Your task to perform on an android device: turn on improve location accuracy Image 0: 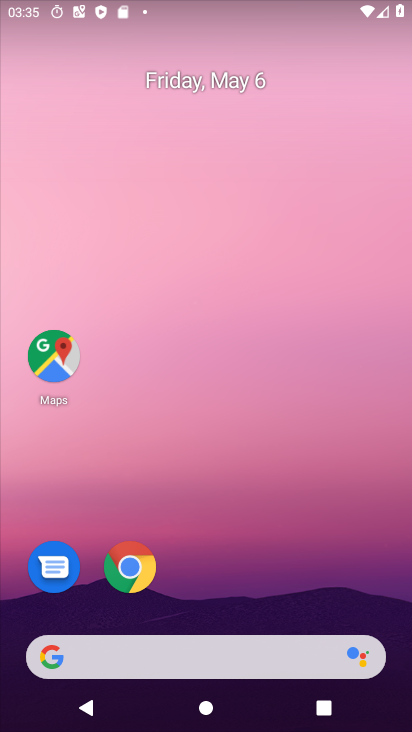
Step 0: drag from (174, 578) to (234, 126)
Your task to perform on an android device: turn on improve location accuracy Image 1: 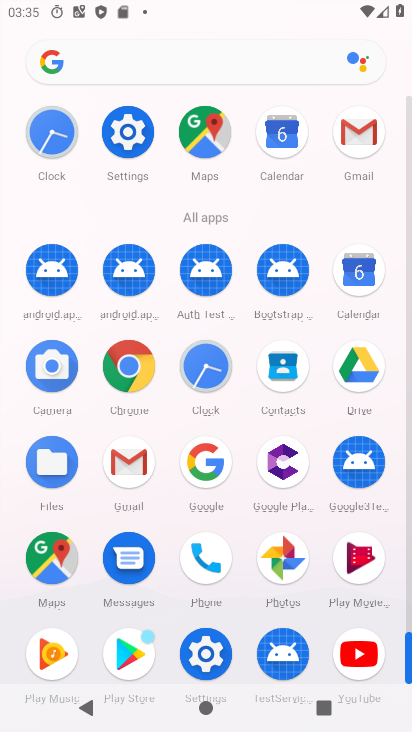
Step 1: click (126, 131)
Your task to perform on an android device: turn on improve location accuracy Image 2: 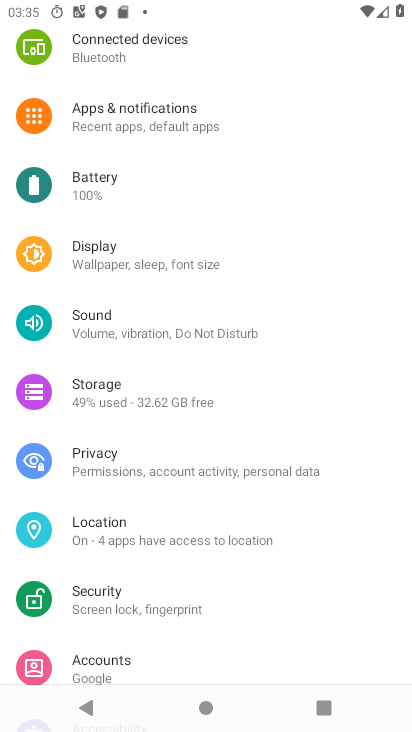
Step 2: drag from (159, 573) to (219, 295)
Your task to perform on an android device: turn on improve location accuracy Image 3: 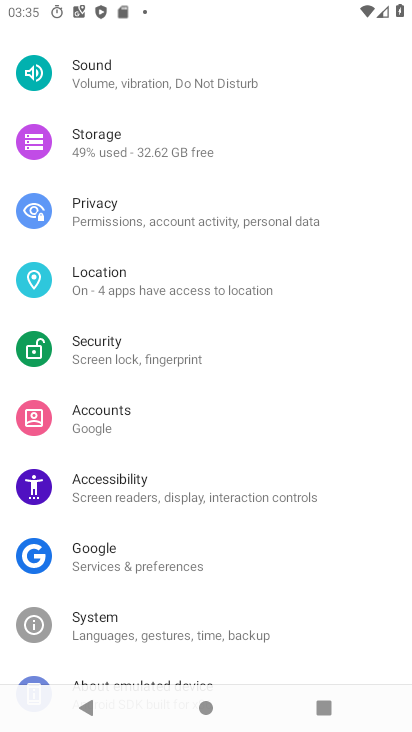
Step 3: click (204, 284)
Your task to perform on an android device: turn on improve location accuracy Image 4: 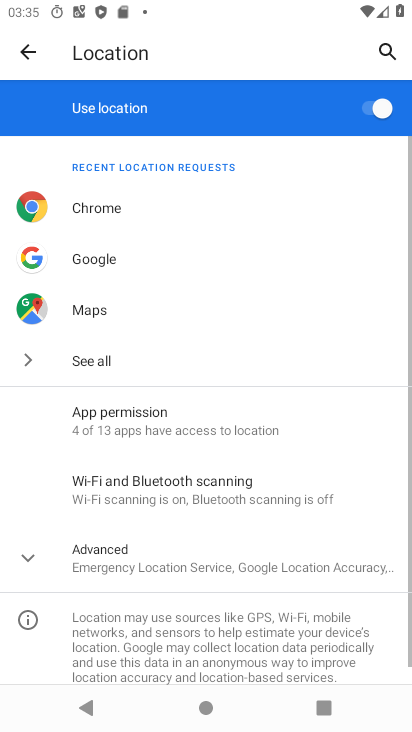
Step 4: click (37, 556)
Your task to perform on an android device: turn on improve location accuracy Image 5: 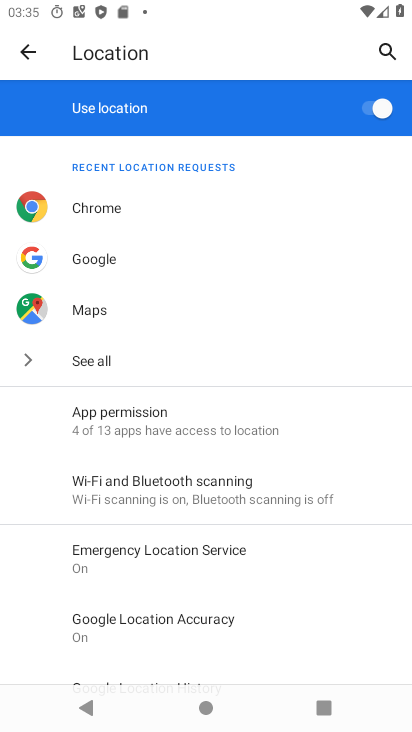
Step 5: drag from (118, 521) to (181, 281)
Your task to perform on an android device: turn on improve location accuracy Image 6: 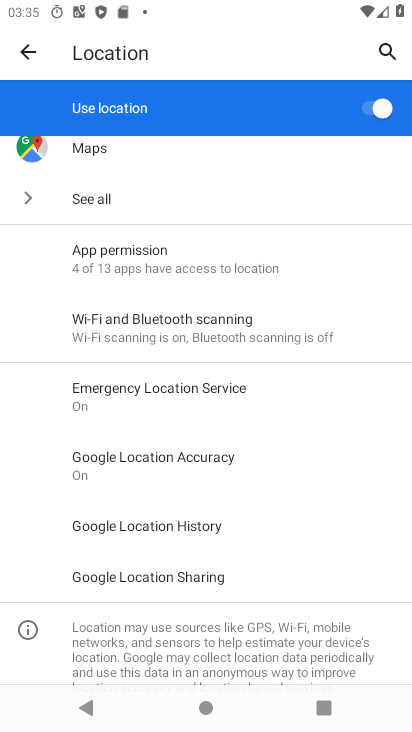
Step 6: click (175, 470)
Your task to perform on an android device: turn on improve location accuracy Image 7: 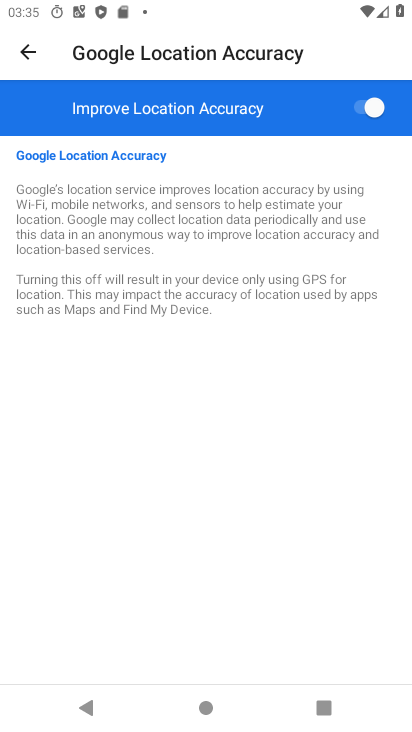
Step 7: task complete